Your task to perform on an android device: delete browsing data in the chrome app Image 0: 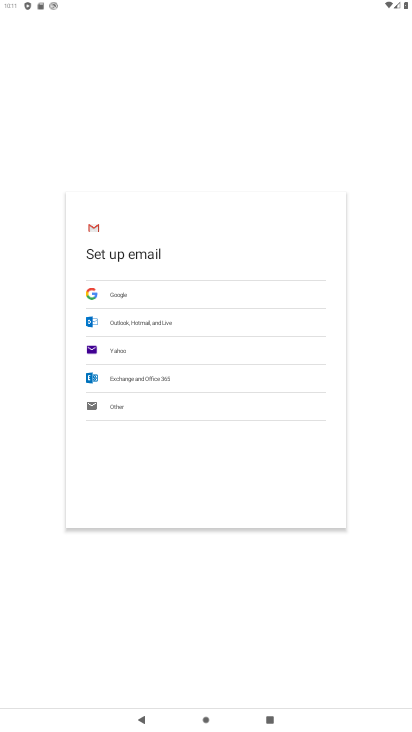
Step 0: press home button
Your task to perform on an android device: delete browsing data in the chrome app Image 1: 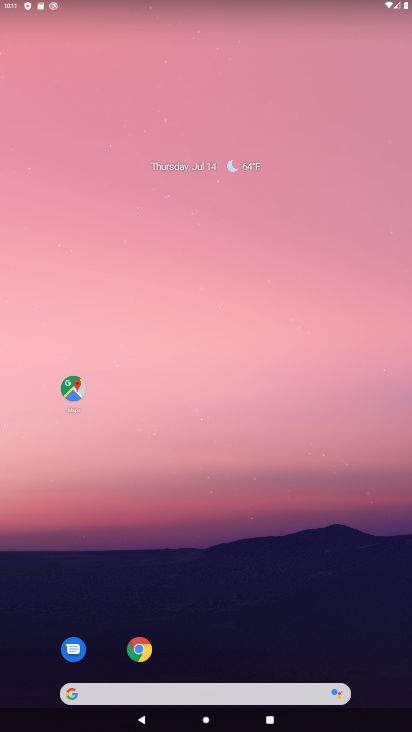
Step 1: drag from (245, 601) to (229, 12)
Your task to perform on an android device: delete browsing data in the chrome app Image 2: 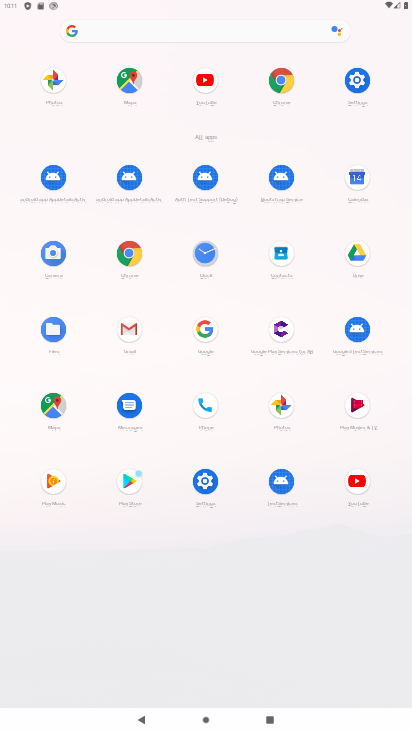
Step 2: click (119, 260)
Your task to perform on an android device: delete browsing data in the chrome app Image 3: 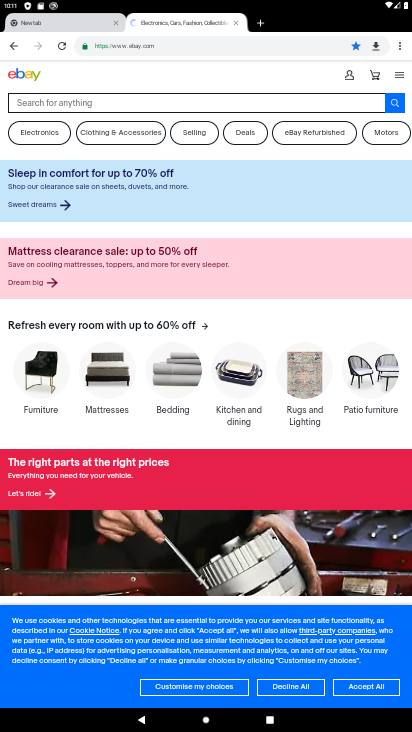
Step 3: drag from (402, 42) to (315, 309)
Your task to perform on an android device: delete browsing data in the chrome app Image 4: 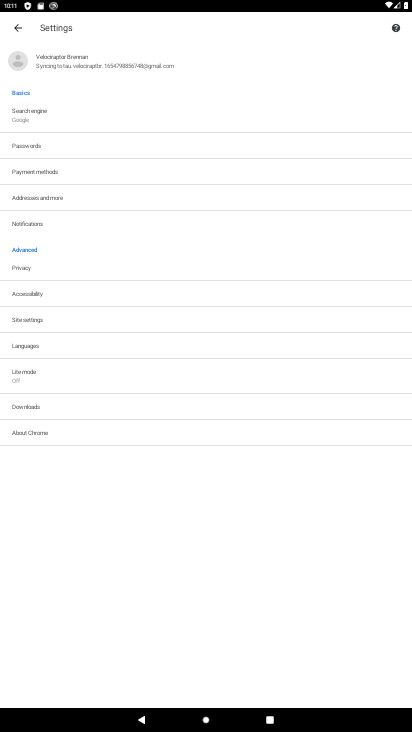
Step 4: click (12, 265)
Your task to perform on an android device: delete browsing data in the chrome app Image 5: 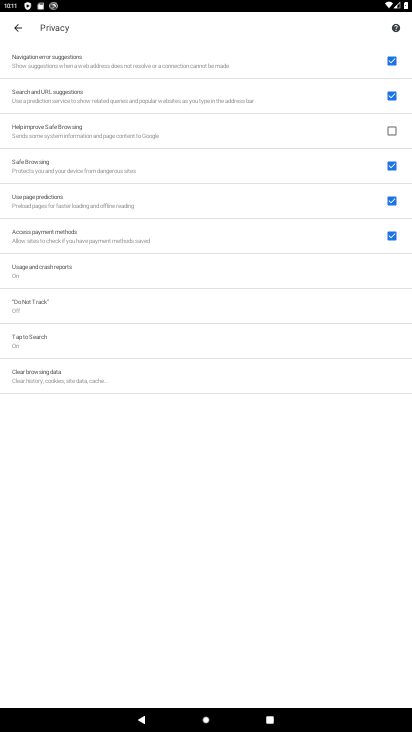
Step 5: click (77, 370)
Your task to perform on an android device: delete browsing data in the chrome app Image 6: 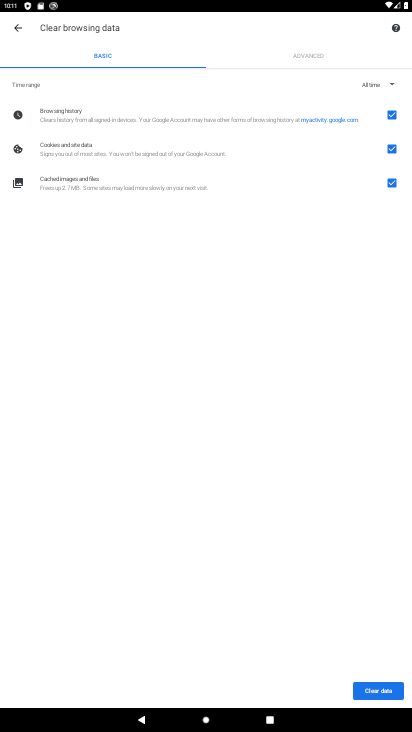
Step 6: click (371, 683)
Your task to perform on an android device: delete browsing data in the chrome app Image 7: 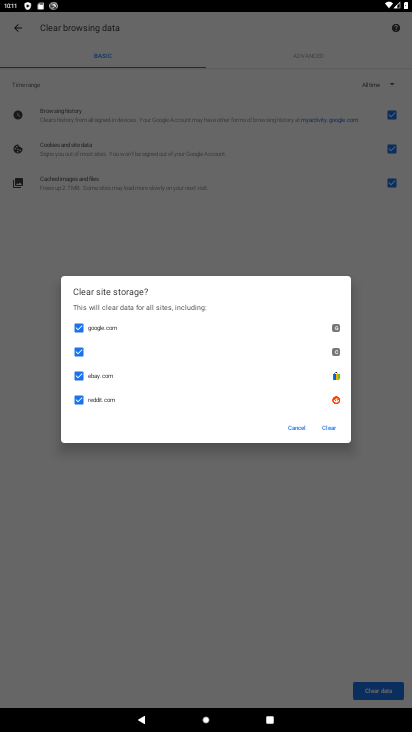
Step 7: click (371, 683)
Your task to perform on an android device: delete browsing data in the chrome app Image 8: 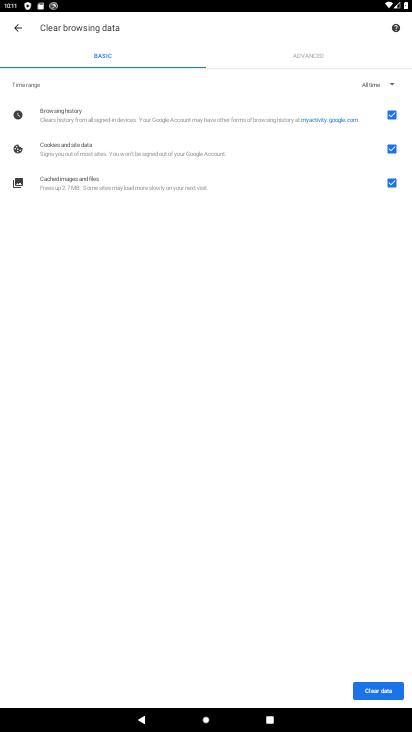
Step 8: click (366, 678)
Your task to perform on an android device: delete browsing data in the chrome app Image 9: 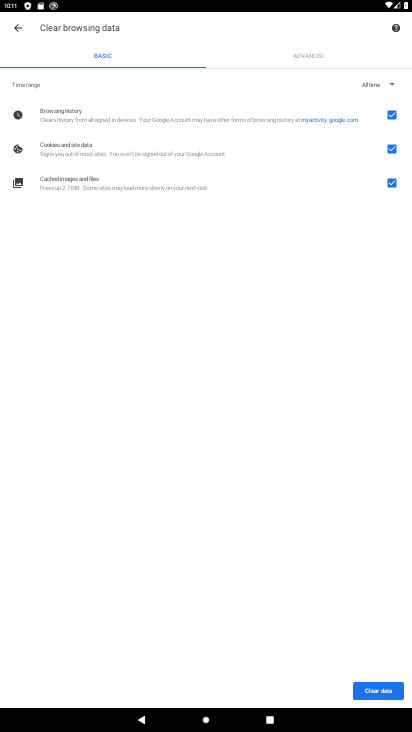
Step 9: click (386, 687)
Your task to perform on an android device: delete browsing data in the chrome app Image 10: 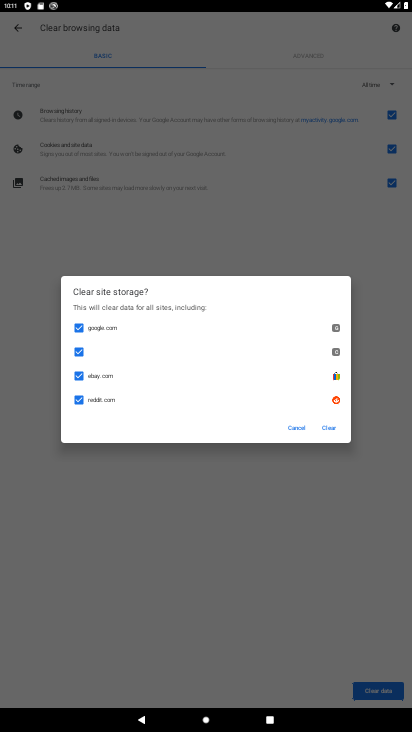
Step 10: click (330, 430)
Your task to perform on an android device: delete browsing data in the chrome app Image 11: 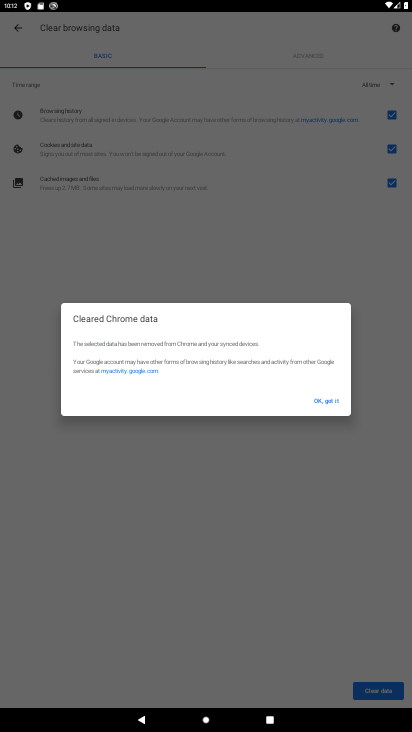
Step 11: click (328, 407)
Your task to perform on an android device: delete browsing data in the chrome app Image 12: 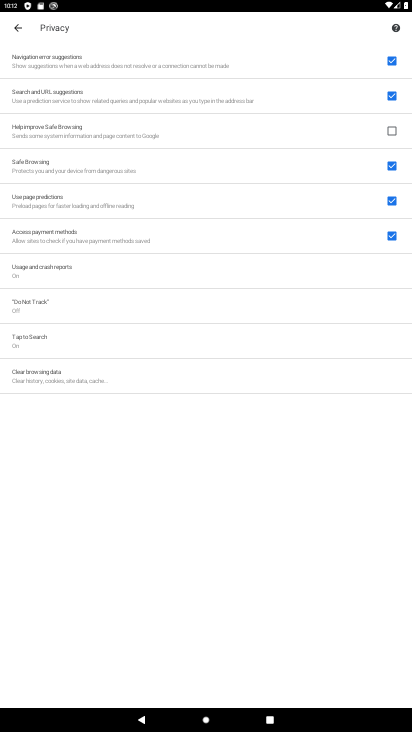
Step 12: task complete